Your task to perform on an android device: turn off notifications in google photos Image 0: 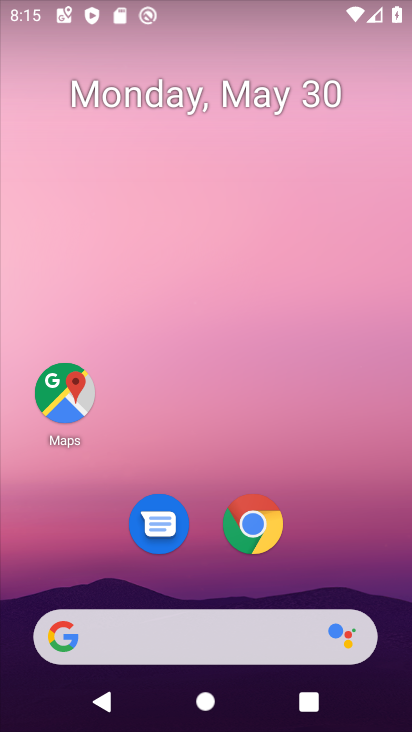
Step 0: drag from (268, 439) to (297, 6)
Your task to perform on an android device: turn off notifications in google photos Image 1: 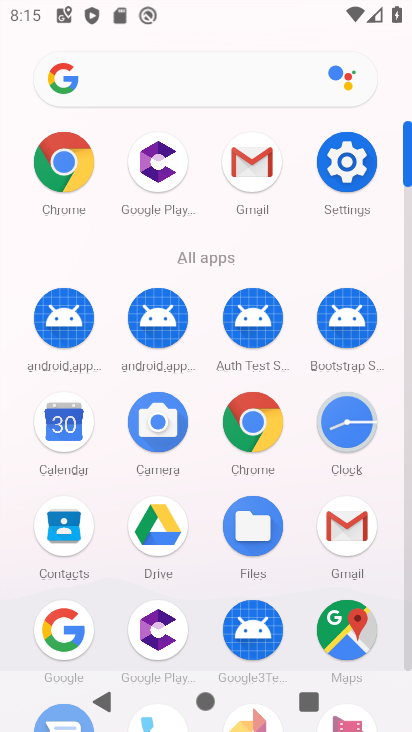
Step 1: drag from (204, 552) to (239, 267)
Your task to perform on an android device: turn off notifications in google photos Image 2: 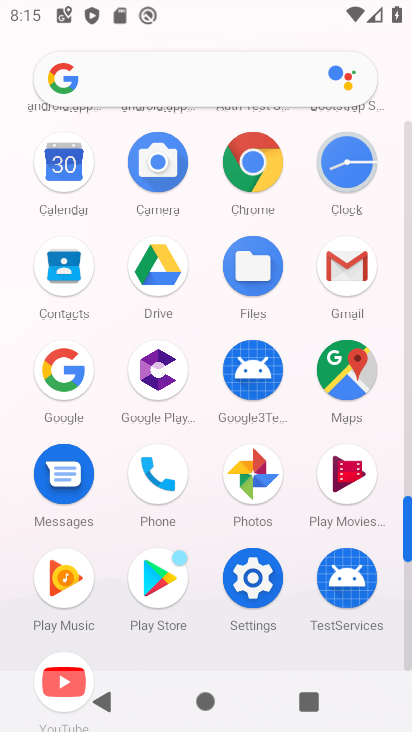
Step 2: click (265, 463)
Your task to perform on an android device: turn off notifications in google photos Image 3: 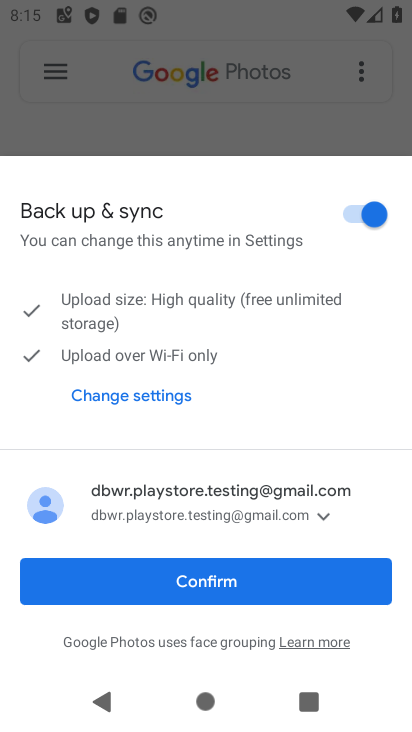
Step 3: click (303, 580)
Your task to perform on an android device: turn off notifications in google photos Image 4: 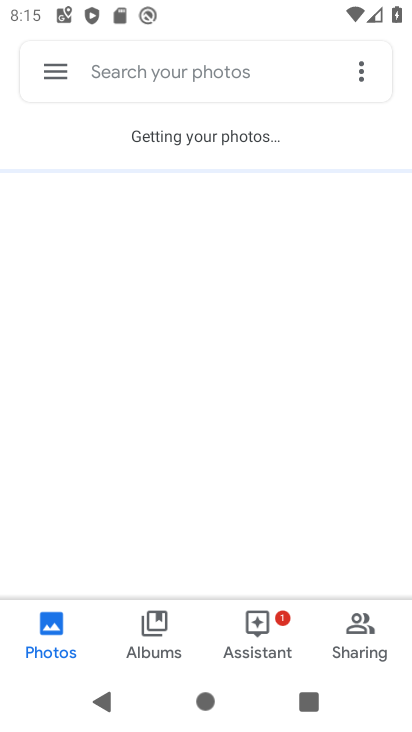
Step 4: click (52, 63)
Your task to perform on an android device: turn off notifications in google photos Image 5: 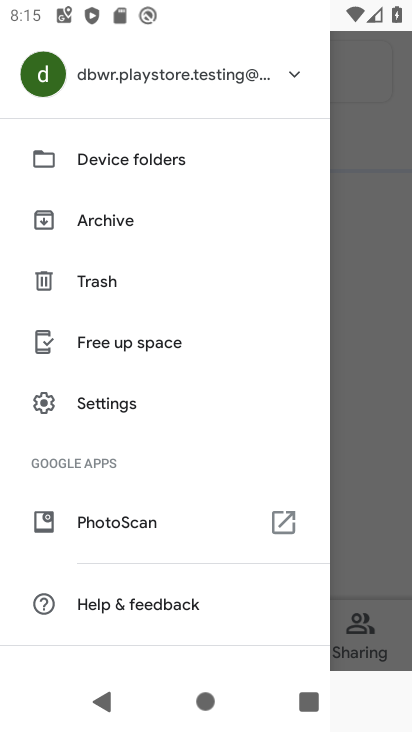
Step 5: click (115, 400)
Your task to perform on an android device: turn off notifications in google photos Image 6: 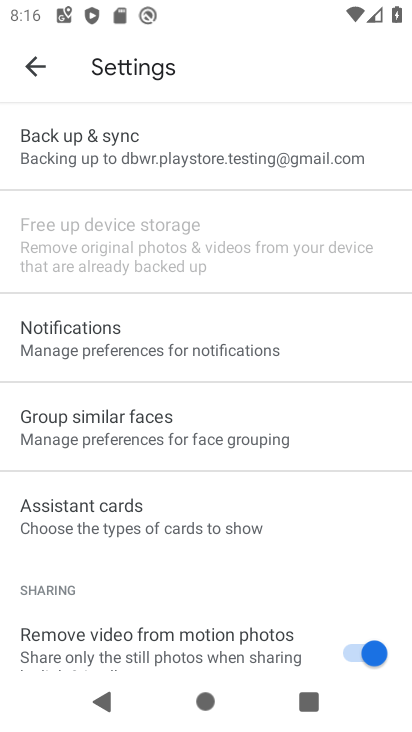
Step 6: click (167, 340)
Your task to perform on an android device: turn off notifications in google photos Image 7: 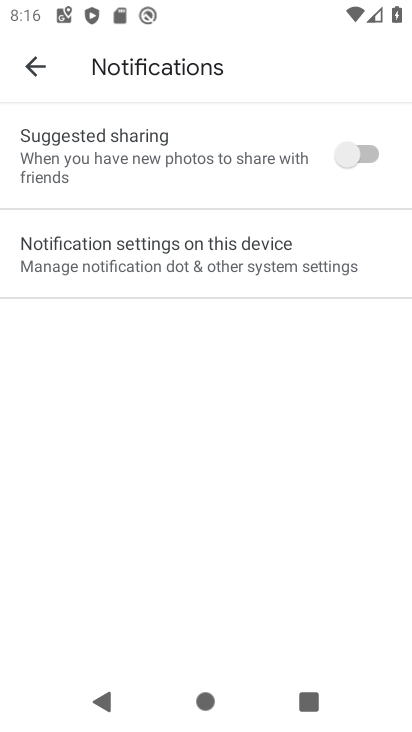
Step 7: click (251, 254)
Your task to perform on an android device: turn off notifications in google photos Image 8: 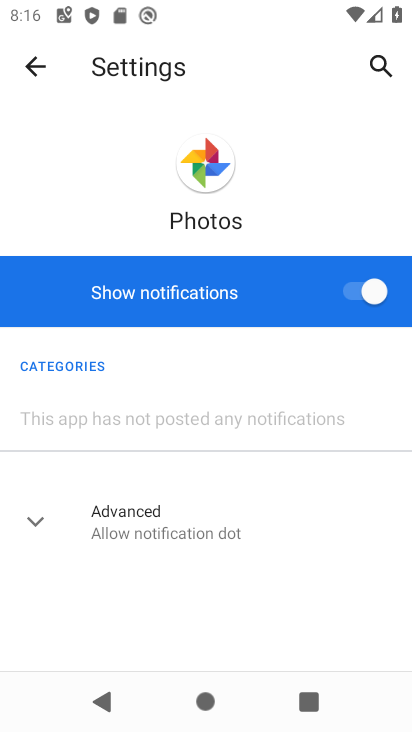
Step 8: click (355, 291)
Your task to perform on an android device: turn off notifications in google photos Image 9: 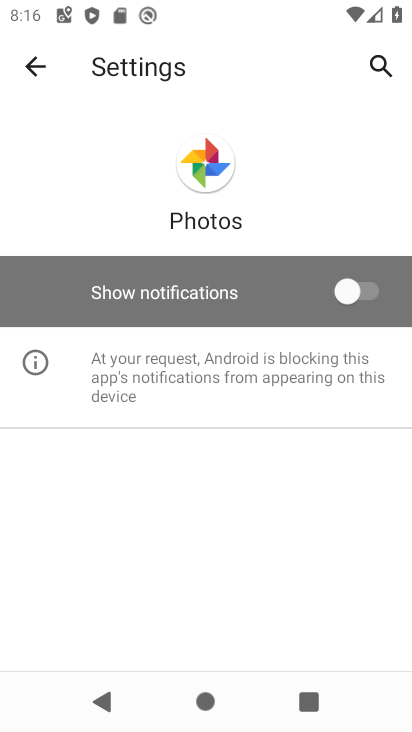
Step 9: task complete